Your task to perform on an android device: Empty the shopping cart on bestbuy. Add "usb-c" to the cart on bestbuy Image 0: 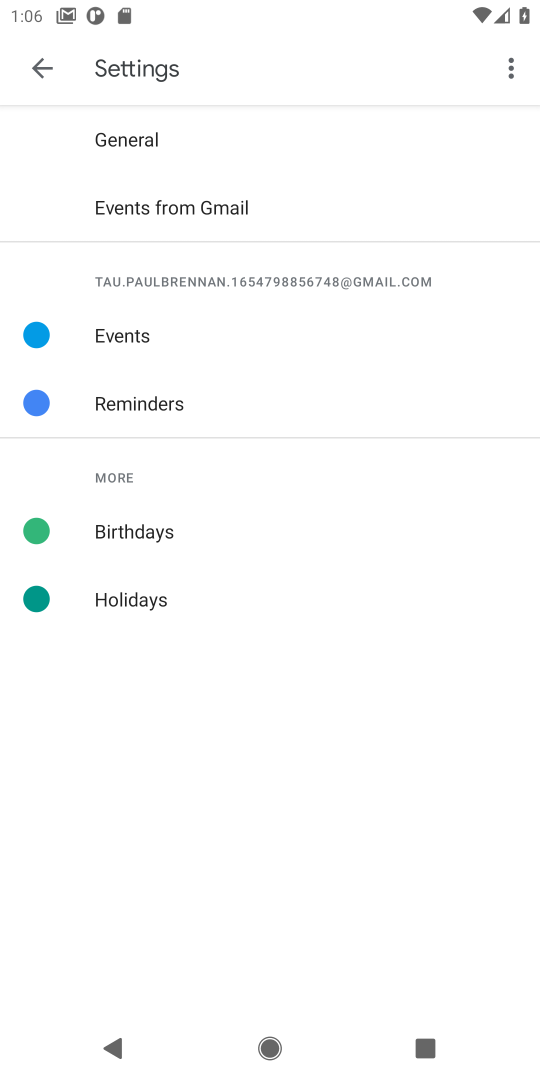
Step 0: press home button
Your task to perform on an android device: Empty the shopping cart on bestbuy. Add "usb-c" to the cart on bestbuy Image 1: 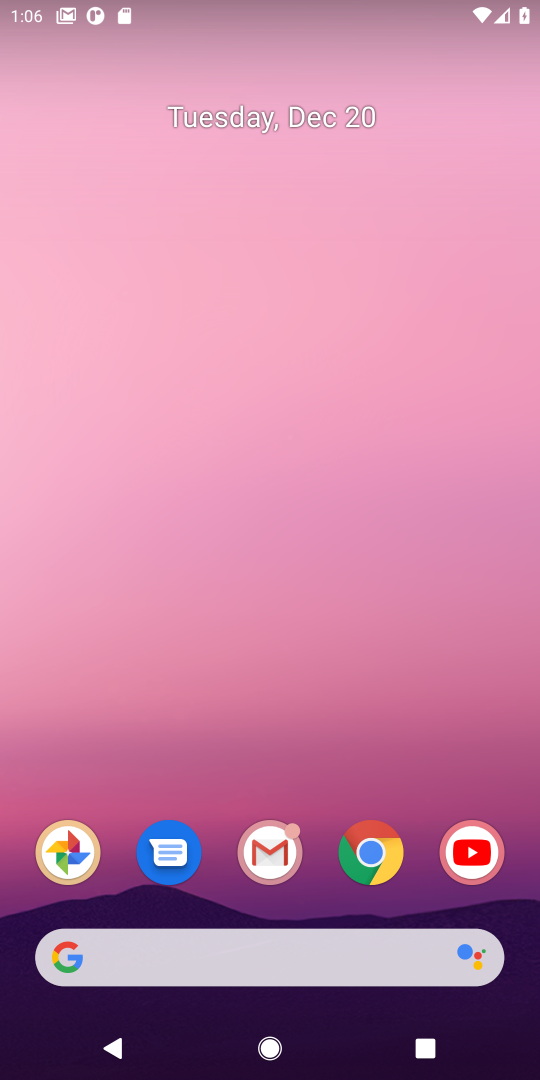
Step 1: click (378, 851)
Your task to perform on an android device: Empty the shopping cart on bestbuy. Add "usb-c" to the cart on bestbuy Image 2: 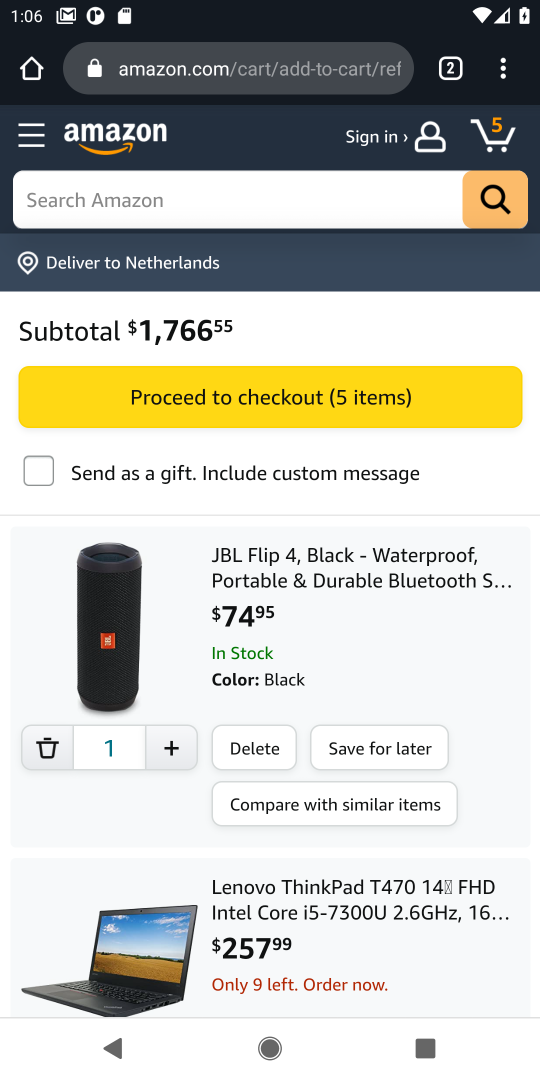
Step 2: click (199, 79)
Your task to perform on an android device: Empty the shopping cart on bestbuy. Add "usb-c" to the cart on bestbuy Image 3: 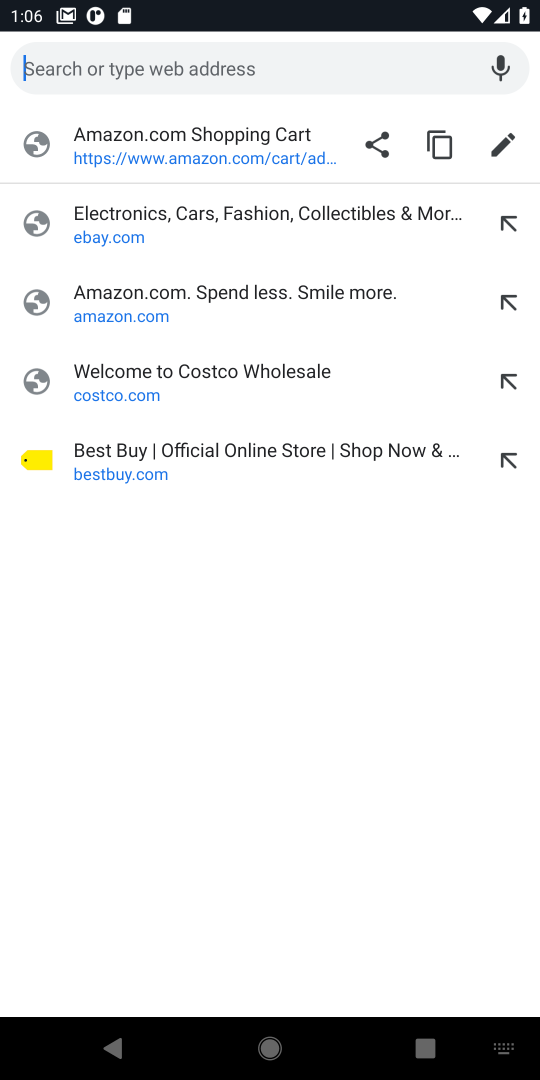
Step 3: click (126, 459)
Your task to perform on an android device: Empty the shopping cart on bestbuy. Add "usb-c" to the cart on bestbuy Image 4: 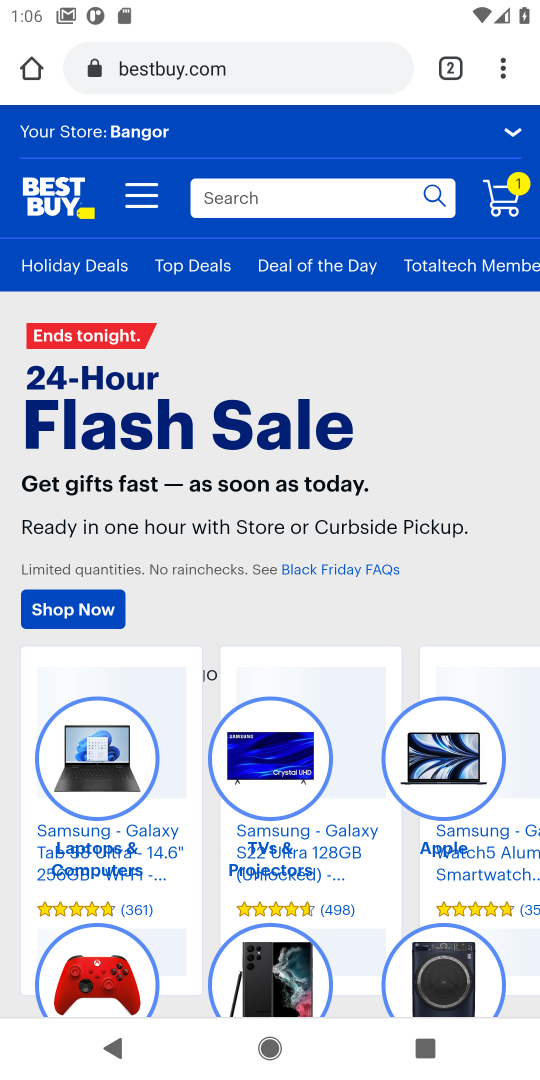
Step 4: click (497, 206)
Your task to perform on an android device: Empty the shopping cart on bestbuy. Add "usb-c" to the cart on bestbuy Image 5: 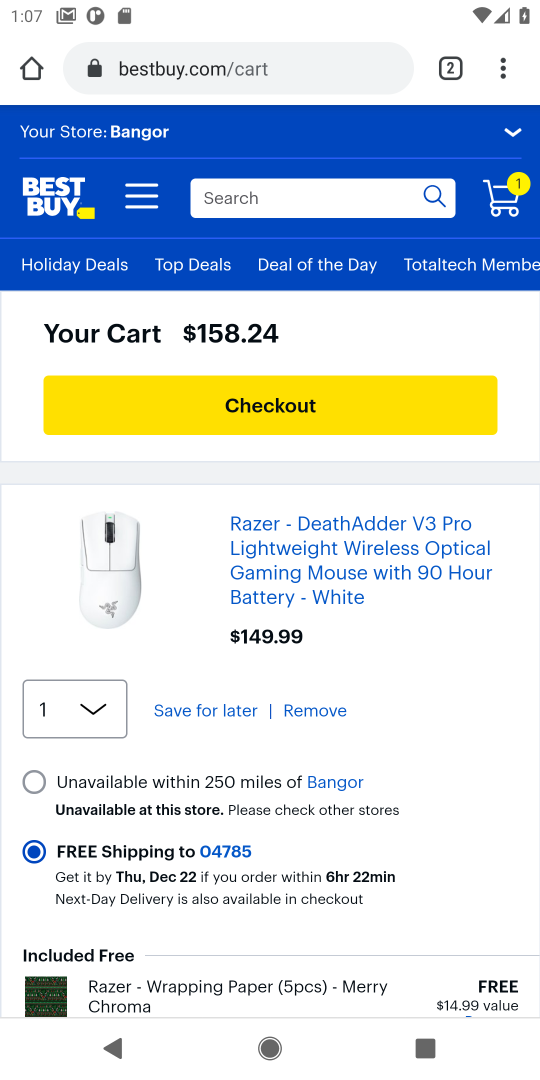
Step 5: click (319, 718)
Your task to perform on an android device: Empty the shopping cart on bestbuy. Add "usb-c" to the cart on bestbuy Image 6: 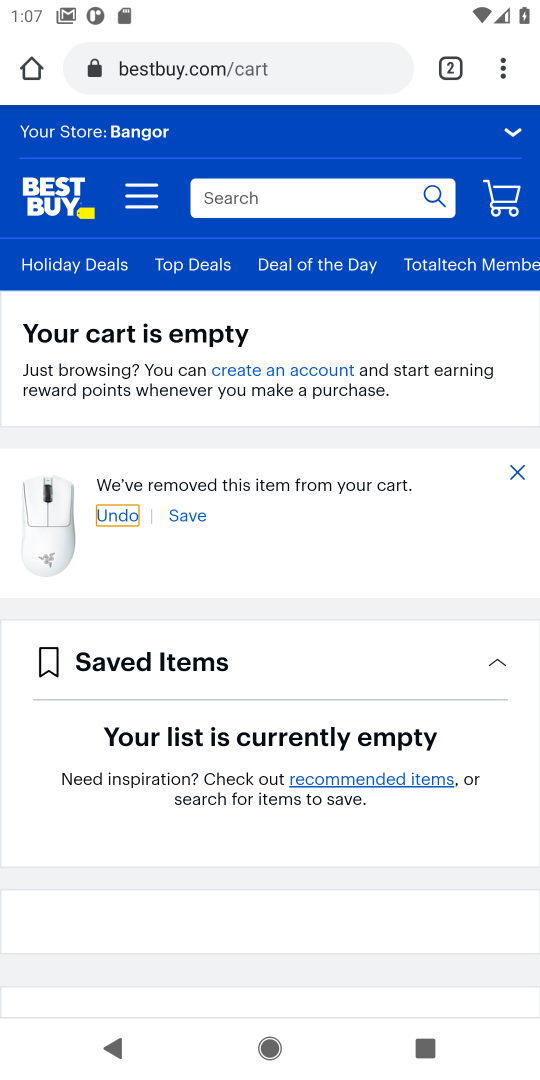
Step 6: click (247, 183)
Your task to perform on an android device: Empty the shopping cart on bestbuy. Add "usb-c" to the cart on bestbuy Image 7: 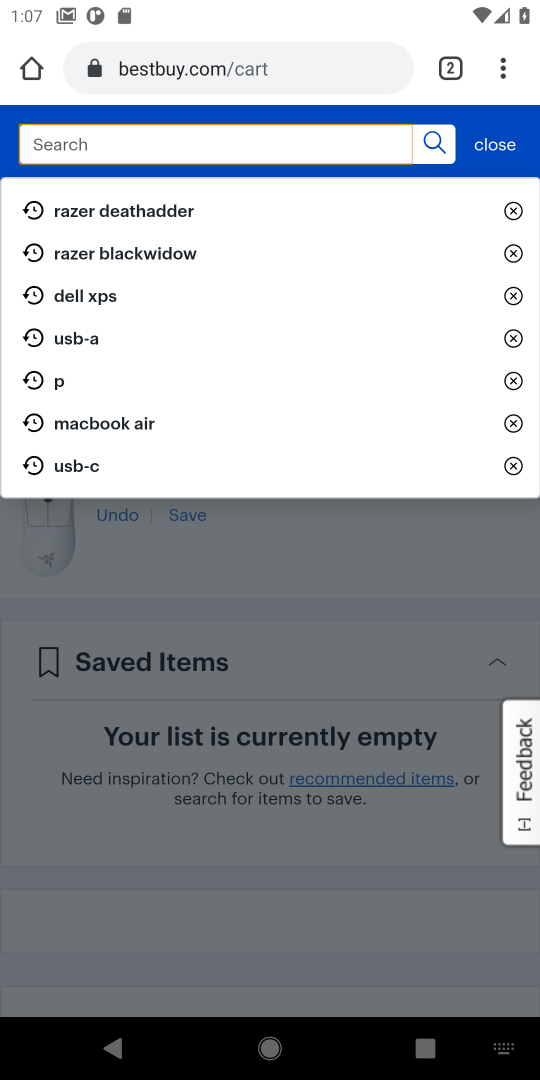
Step 7: click (85, 134)
Your task to perform on an android device: Empty the shopping cart on bestbuy. Add "usb-c" to the cart on bestbuy Image 8: 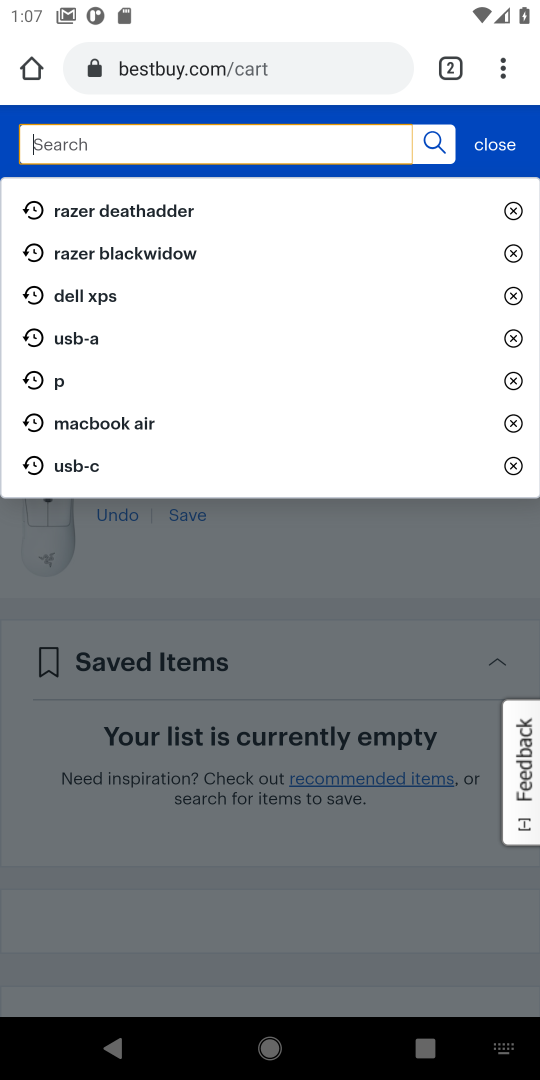
Step 8: type "usb-c"
Your task to perform on an android device: Empty the shopping cart on bestbuy. Add "usb-c" to the cart on bestbuy Image 9: 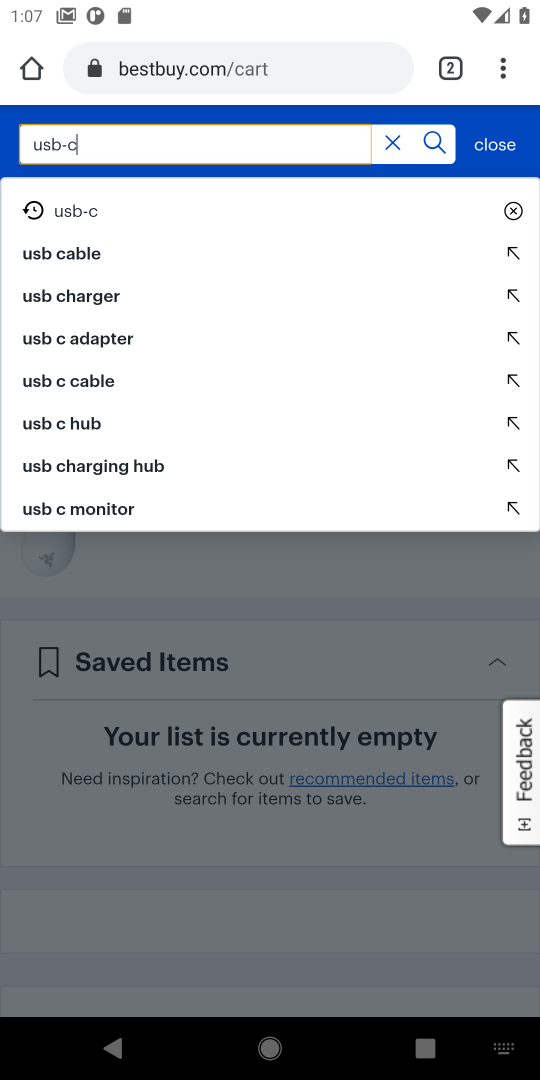
Step 9: click (60, 218)
Your task to perform on an android device: Empty the shopping cart on bestbuy. Add "usb-c" to the cart on bestbuy Image 10: 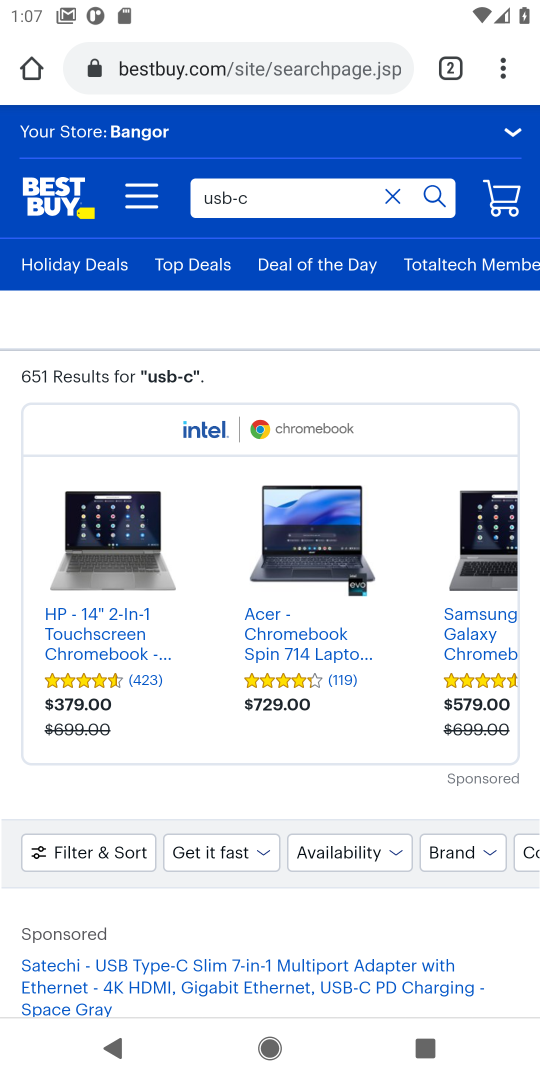
Step 10: drag from (200, 826) to (213, 488)
Your task to perform on an android device: Empty the shopping cart on bestbuy. Add "usb-c" to the cart on bestbuy Image 11: 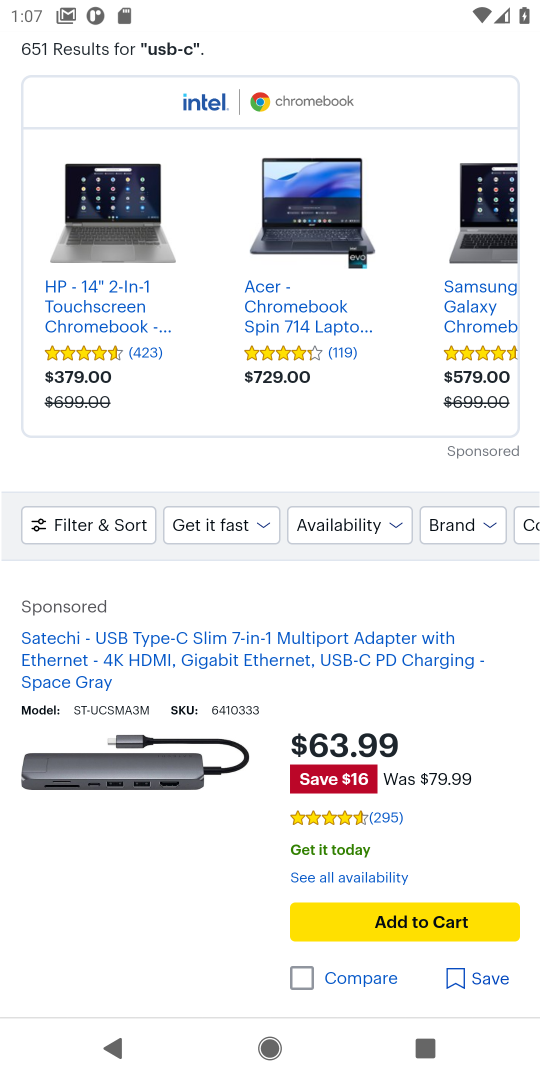
Step 11: drag from (168, 755) to (176, 519)
Your task to perform on an android device: Empty the shopping cart on bestbuy. Add "usb-c" to the cart on bestbuy Image 12: 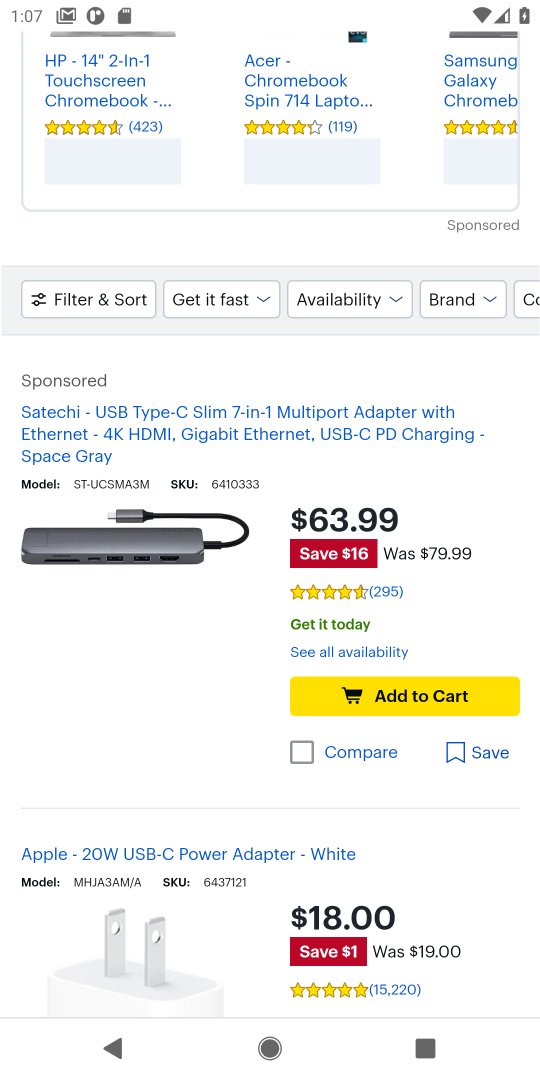
Step 12: click (417, 700)
Your task to perform on an android device: Empty the shopping cart on bestbuy. Add "usb-c" to the cart on bestbuy Image 13: 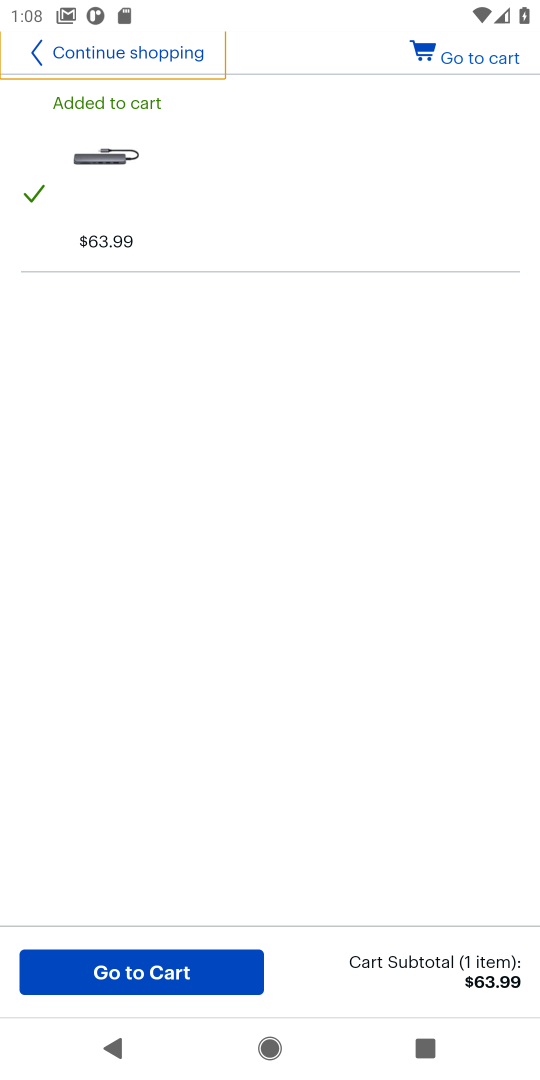
Step 13: task complete